Your task to perform on an android device: turn off translation in the chrome app Image 0: 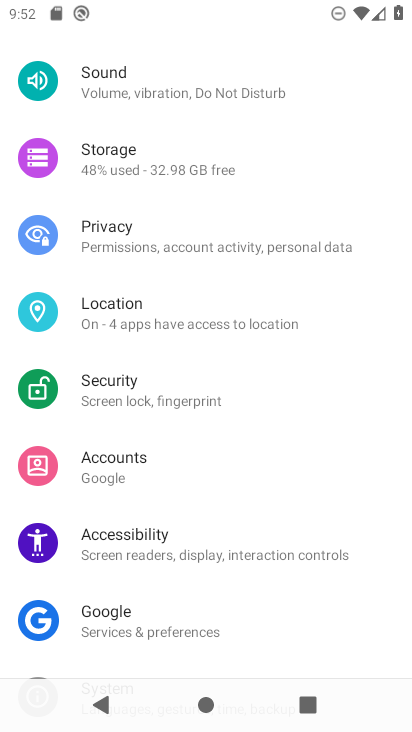
Step 0: press home button
Your task to perform on an android device: turn off translation in the chrome app Image 1: 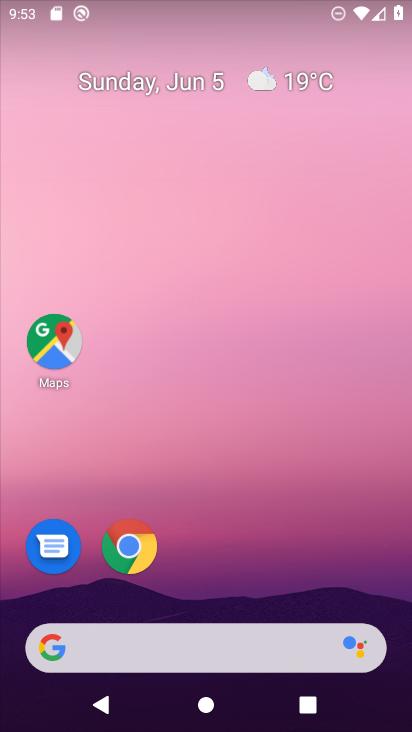
Step 1: click (146, 554)
Your task to perform on an android device: turn off translation in the chrome app Image 2: 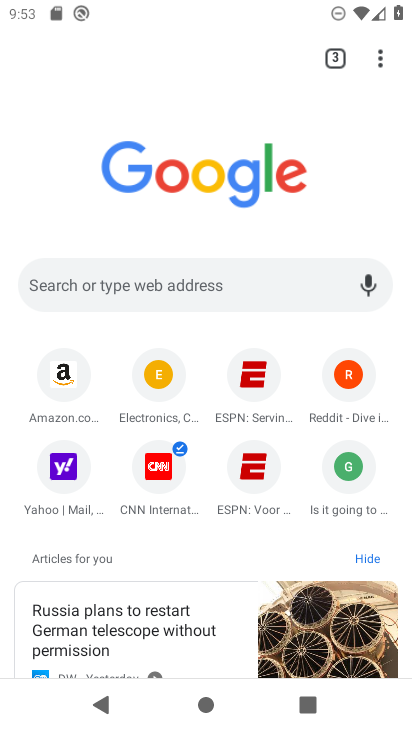
Step 2: click (383, 58)
Your task to perform on an android device: turn off translation in the chrome app Image 3: 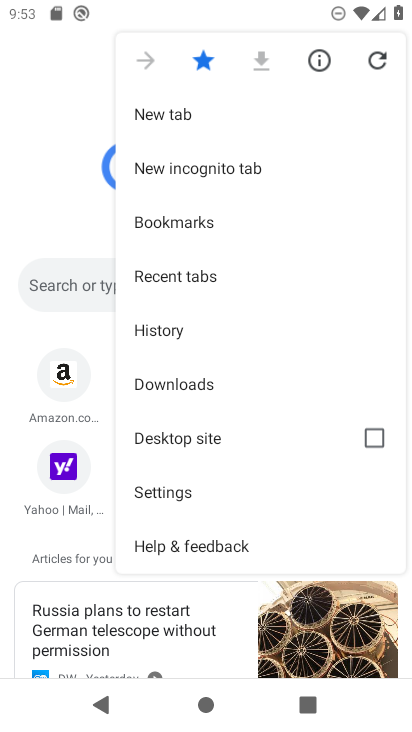
Step 3: click (174, 489)
Your task to perform on an android device: turn off translation in the chrome app Image 4: 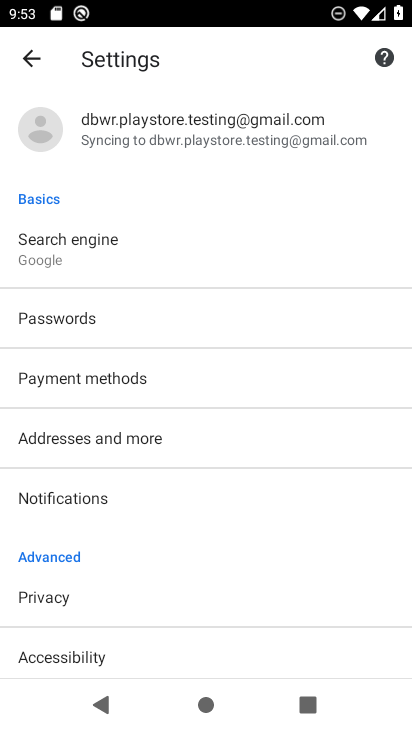
Step 4: drag from (190, 589) to (85, 38)
Your task to perform on an android device: turn off translation in the chrome app Image 5: 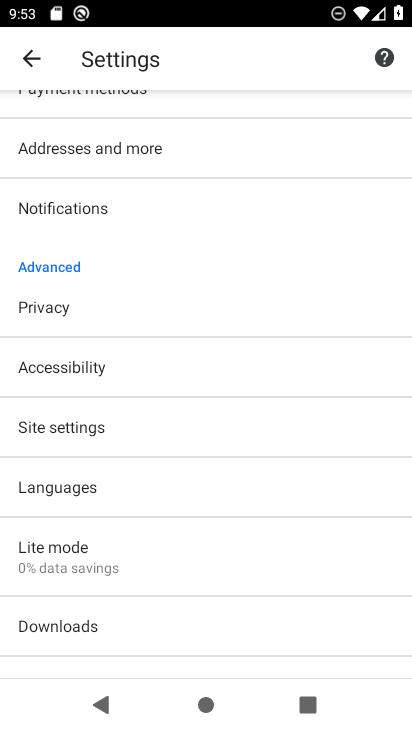
Step 5: click (33, 469)
Your task to perform on an android device: turn off translation in the chrome app Image 6: 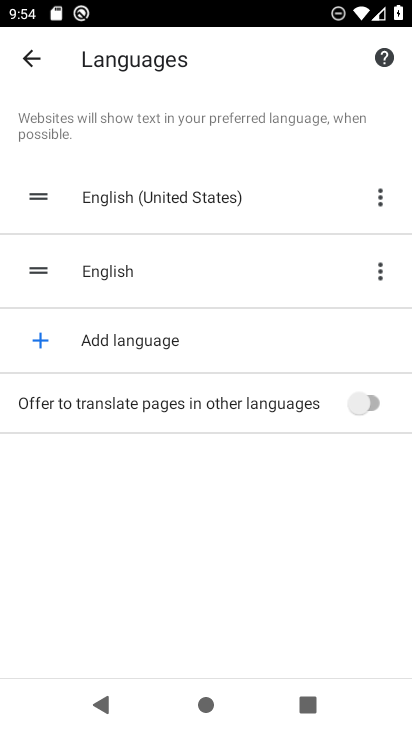
Step 6: task complete